Your task to perform on an android device: Open the calendar app, open the side menu, and click the "Day" option Image 0: 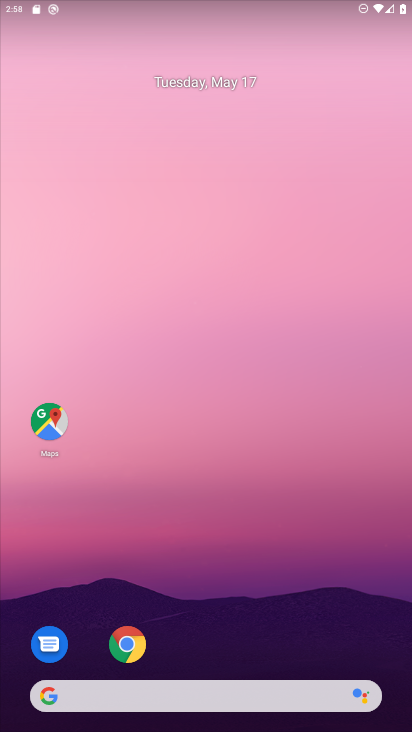
Step 0: drag from (243, 662) to (221, 155)
Your task to perform on an android device: Open the calendar app, open the side menu, and click the "Day" option Image 1: 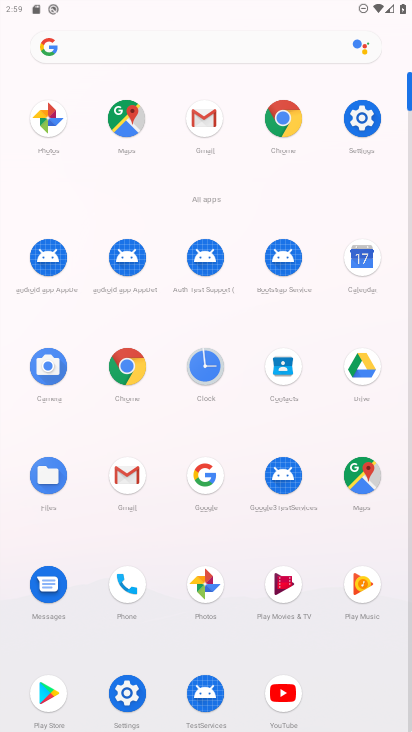
Step 1: click (369, 256)
Your task to perform on an android device: Open the calendar app, open the side menu, and click the "Day" option Image 2: 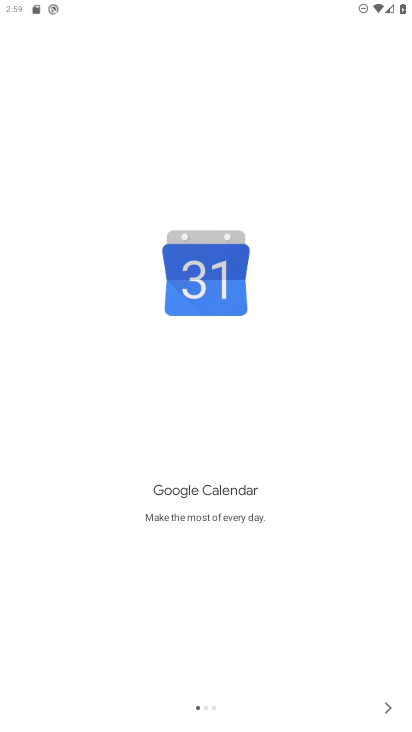
Step 2: click (381, 705)
Your task to perform on an android device: Open the calendar app, open the side menu, and click the "Day" option Image 3: 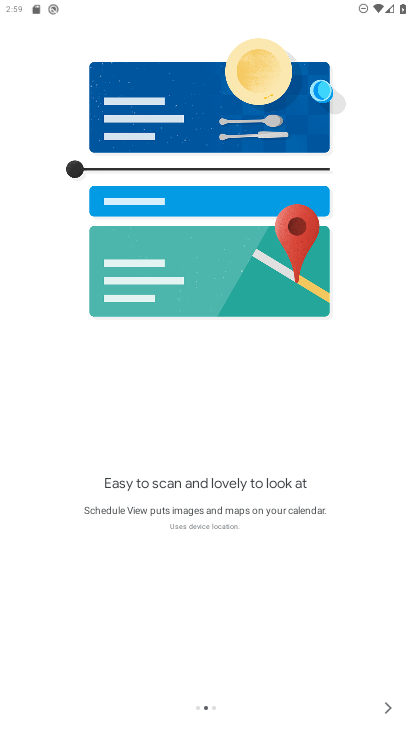
Step 3: click (381, 705)
Your task to perform on an android device: Open the calendar app, open the side menu, and click the "Day" option Image 4: 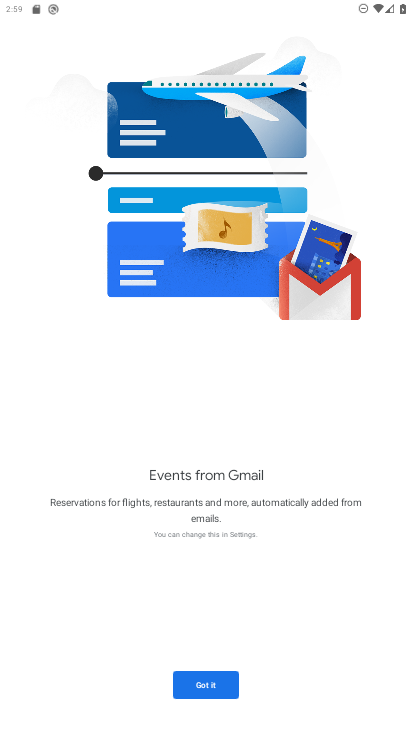
Step 4: click (381, 705)
Your task to perform on an android device: Open the calendar app, open the side menu, and click the "Day" option Image 5: 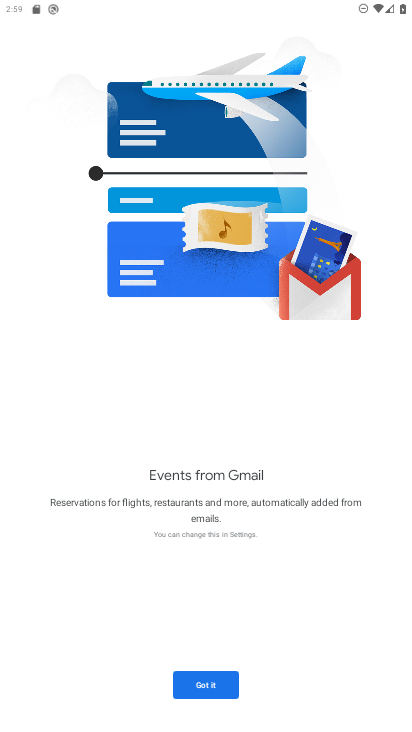
Step 5: click (223, 689)
Your task to perform on an android device: Open the calendar app, open the side menu, and click the "Day" option Image 6: 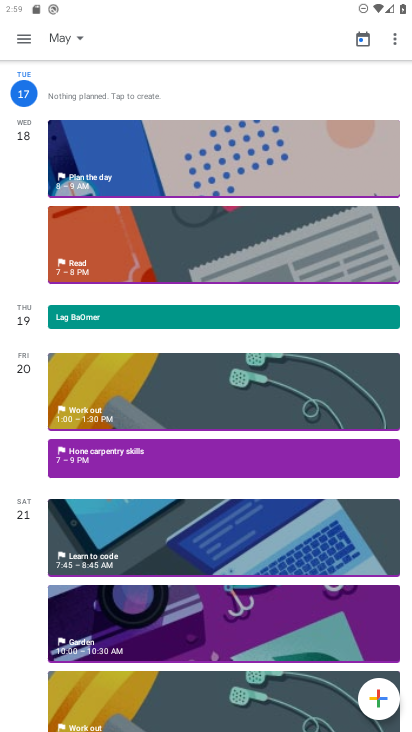
Step 6: click (25, 35)
Your task to perform on an android device: Open the calendar app, open the side menu, and click the "Day" option Image 7: 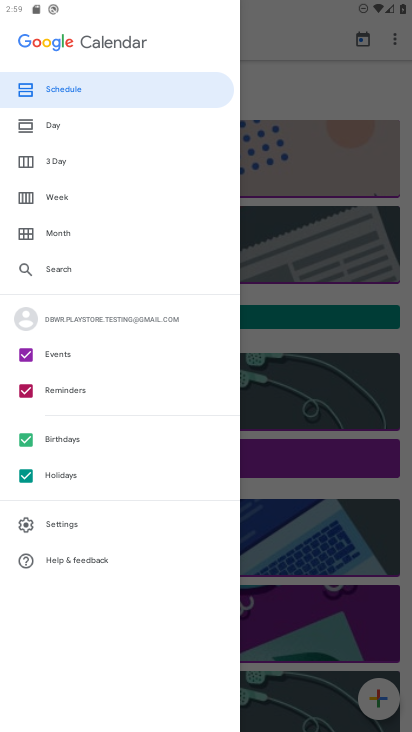
Step 7: click (76, 130)
Your task to perform on an android device: Open the calendar app, open the side menu, and click the "Day" option Image 8: 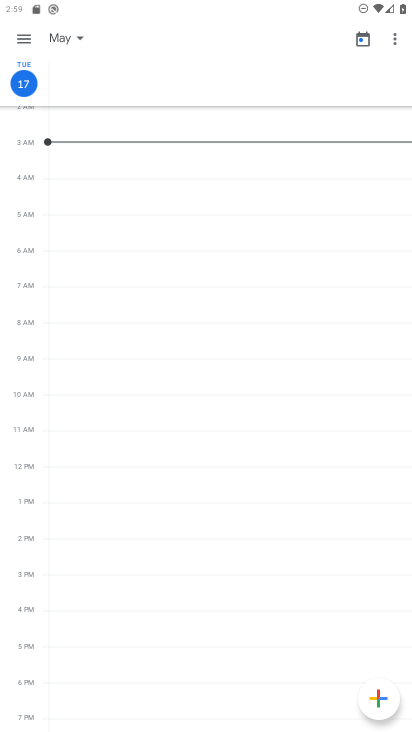
Step 8: task complete